Your task to perform on an android device: What is the recent news? Image 0: 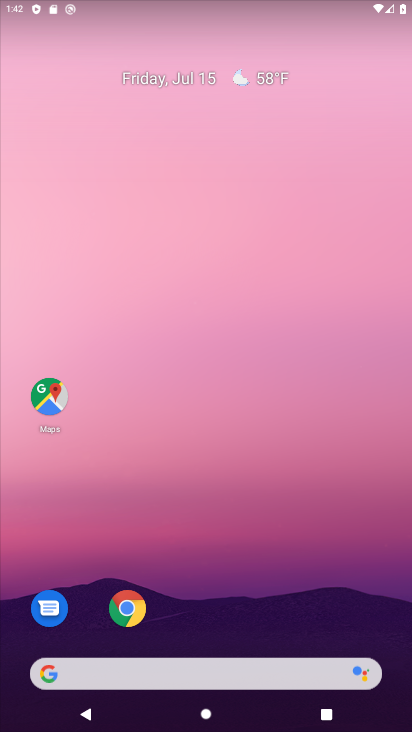
Step 0: drag from (23, 226) to (387, 242)
Your task to perform on an android device: What is the recent news? Image 1: 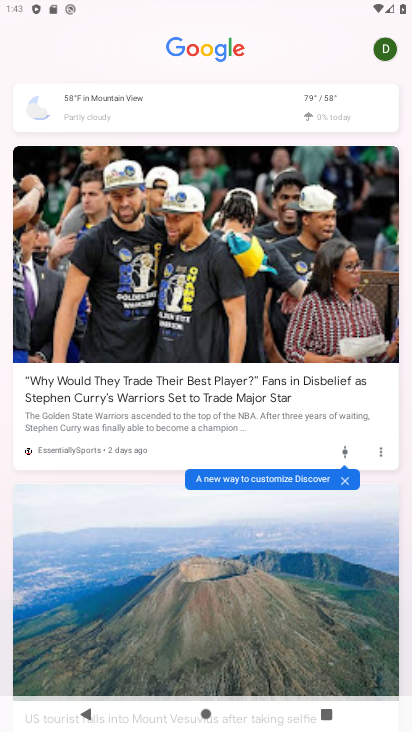
Step 1: task complete